Your task to perform on an android device: make emails show in primary in the gmail app Image 0: 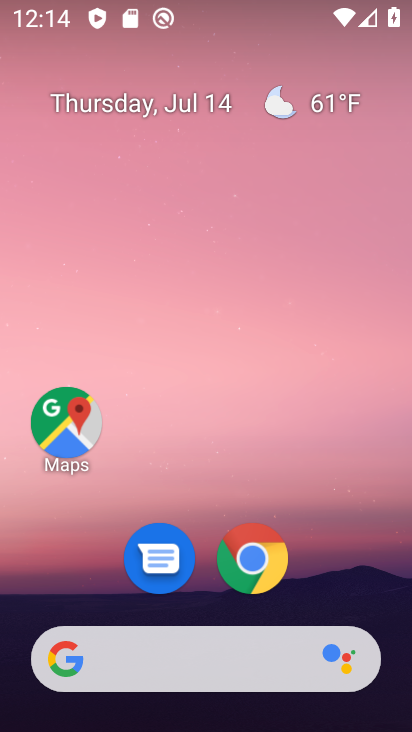
Step 0: drag from (224, 605) to (279, 14)
Your task to perform on an android device: make emails show in primary in the gmail app Image 1: 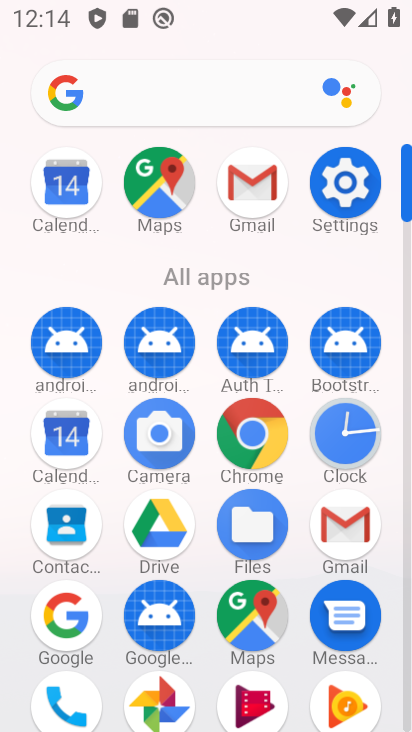
Step 1: click (247, 166)
Your task to perform on an android device: make emails show in primary in the gmail app Image 2: 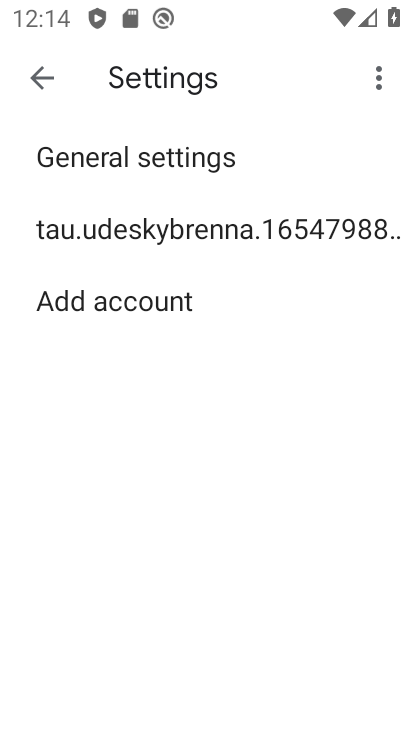
Step 2: click (118, 240)
Your task to perform on an android device: make emails show in primary in the gmail app Image 3: 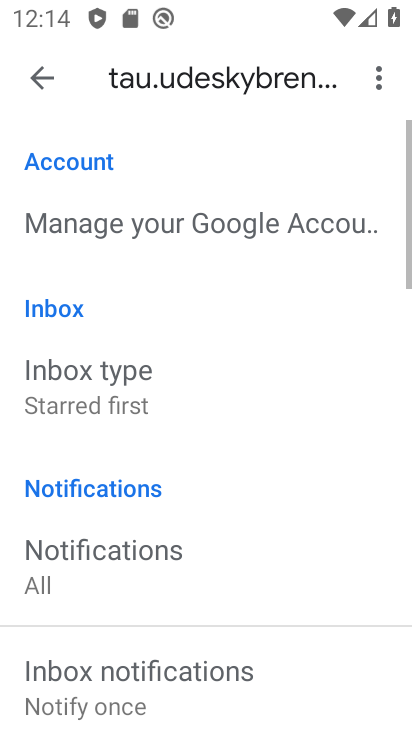
Step 3: task complete